Your task to perform on an android device: Open Google Chrome and click the shortcut for Amazon.com Image 0: 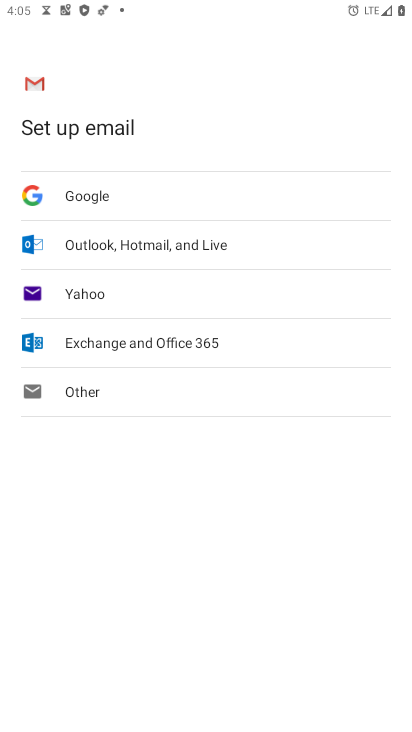
Step 0: press back button
Your task to perform on an android device: Open Google Chrome and click the shortcut for Amazon.com Image 1: 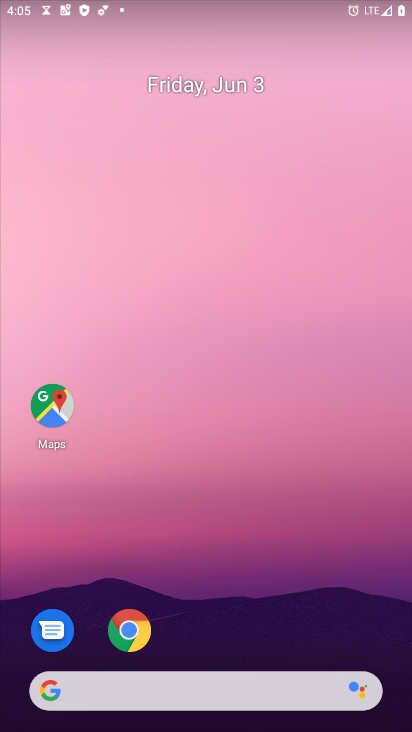
Step 1: drag from (265, 567) to (276, 38)
Your task to perform on an android device: Open Google Chrome and click the shortcut for Amazon.com Image 2: 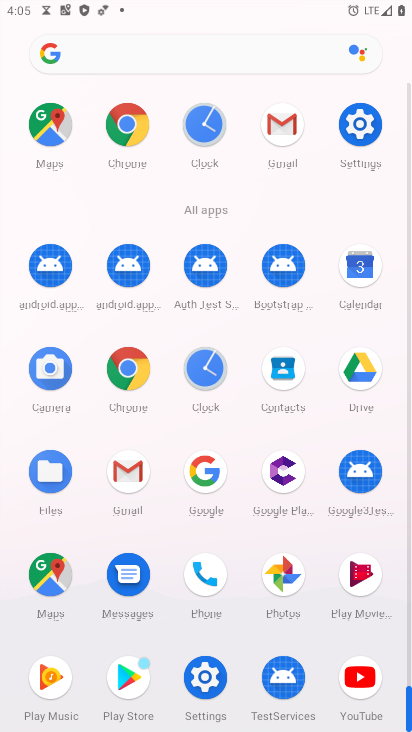
Step 2: drag from (2, 618) to (20, 267)
Your task to perform on an android device: Open Google Chrome and click the shortcut for Amazon.com Image 3: 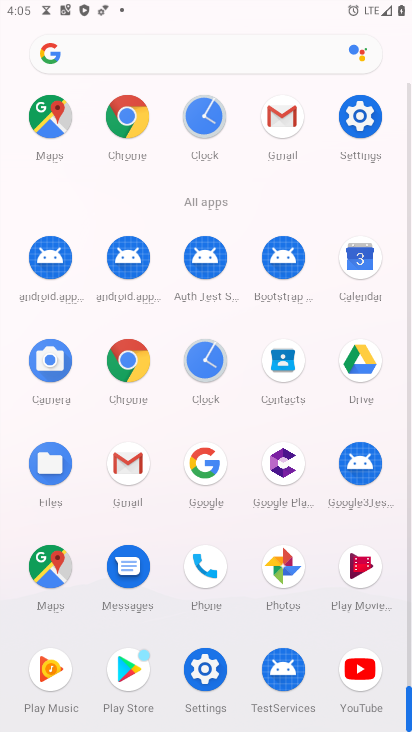
Step 3: click (123, 355)
Your task to perform on an android device: Open Google Chrome and click the shortcut for Amazon.com Image 4: 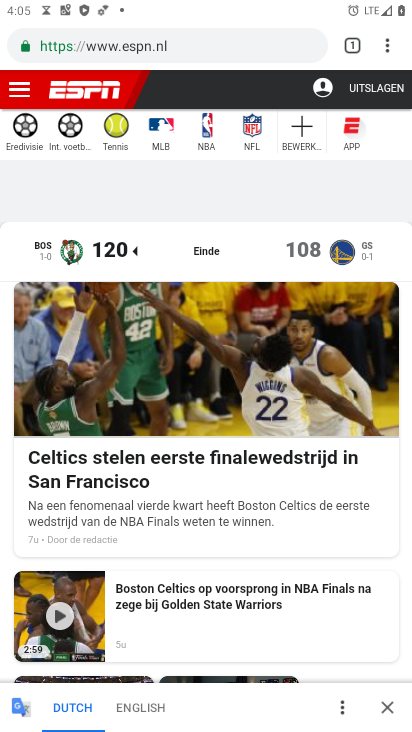
Step 4: click (122, 44)
Your task to perform on an android device: Open Google Chrome and click the shortcut for Amazon.com Image 5: 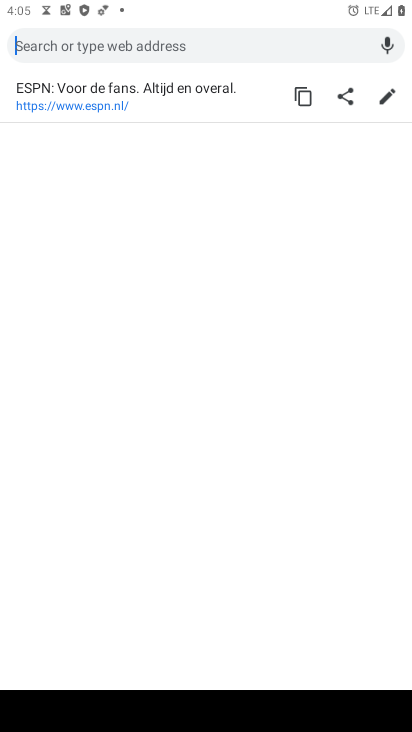
Step 5: type "Amazon.com"
Your task to perform on an android device: Open Google Chrome and click the shortcut for Amazon.com Image 6: 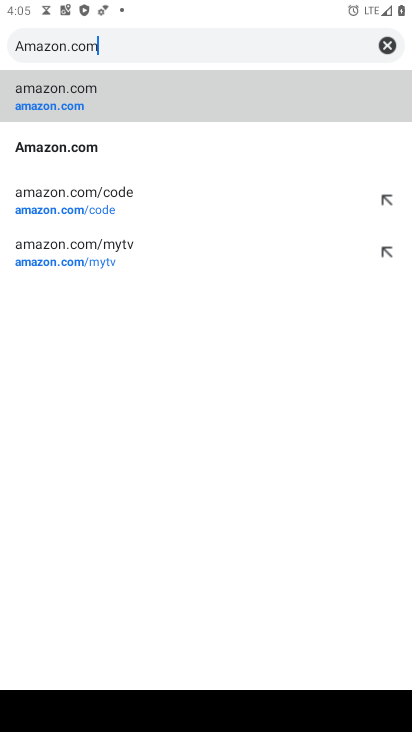
Step 6: click (81, 103)
Your task to perform on an android device: Open Google Chrome and click the shortcut for Amazon.com Image 7: 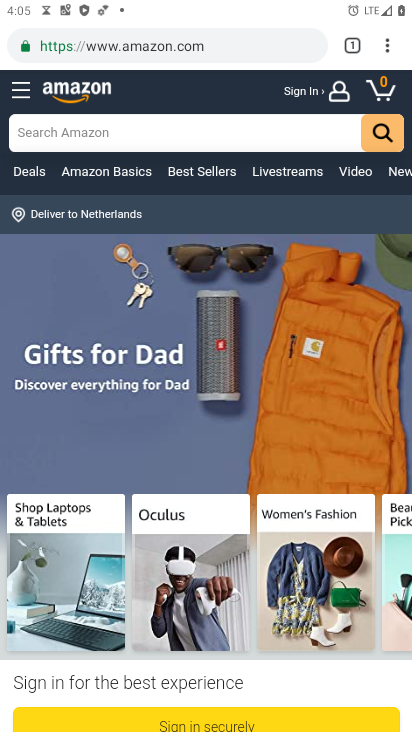
Step 7: task complete